Your task to perform on an android device: check battery use Image 0: 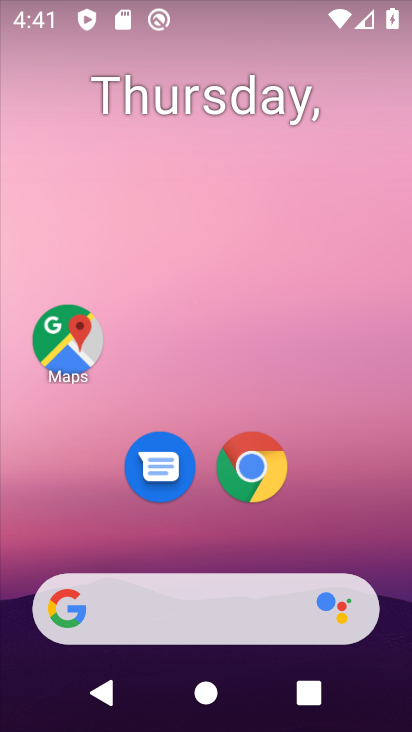
Step 0: drag from (343, 505) to (258, 1)
Your task to perform on an android device: check battery use Image 1: 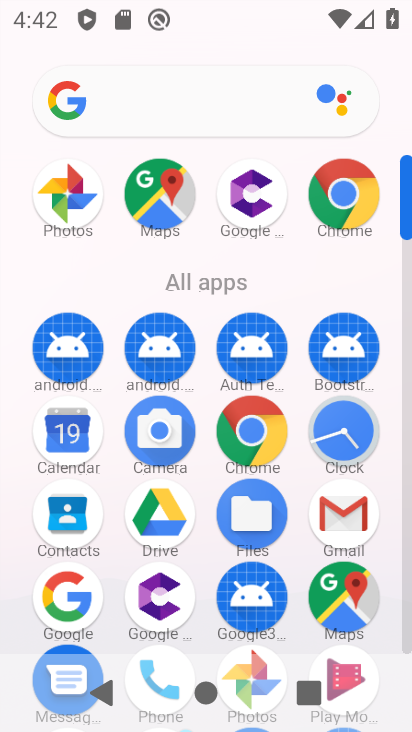
Step 1: click (403, 638)
Your task to perform on an android device: check battery use Image 2: 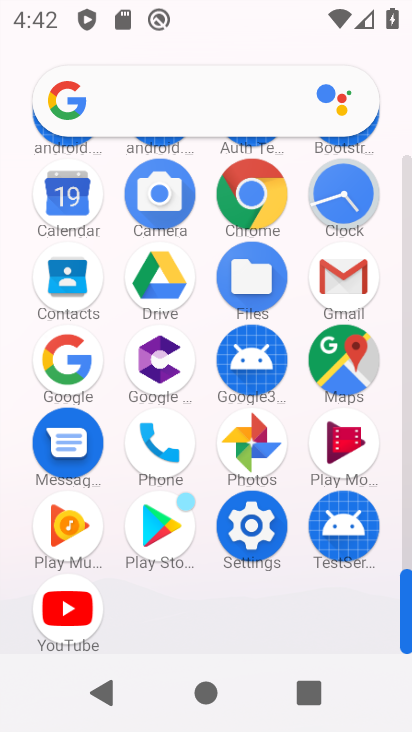
Step 2: click (251, 551)
Your task to perform on an android device: check battery use Image 3: 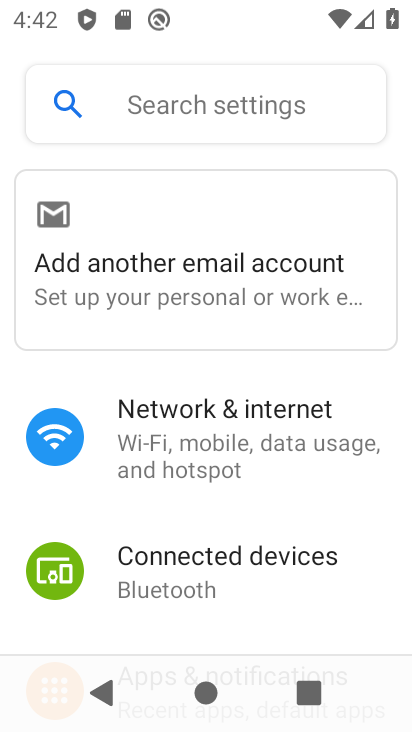
Step 3: drag from (291, 633) to (264, 214)
Your task to perform on an android device: check battery use Image 4: 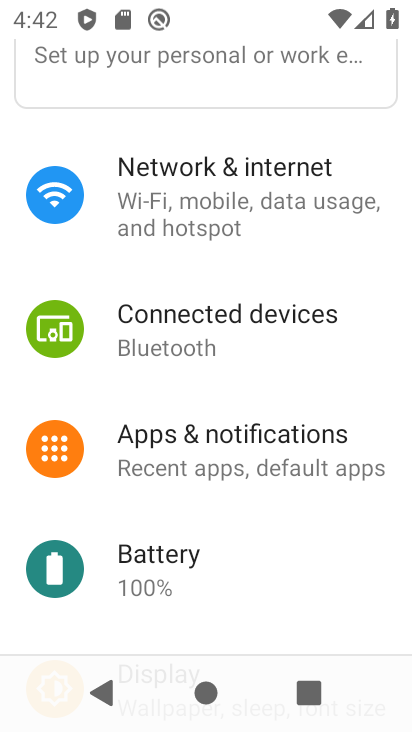
Step 4: click (263, 564)
Your task to perform on an android device: check battery use Image 5: 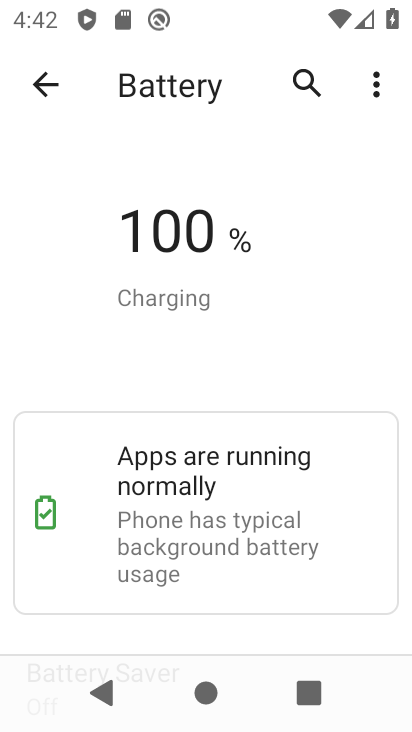
Step 5: task complete